Your task to perform on an android device: Open Chrome and go to settings Image 0: 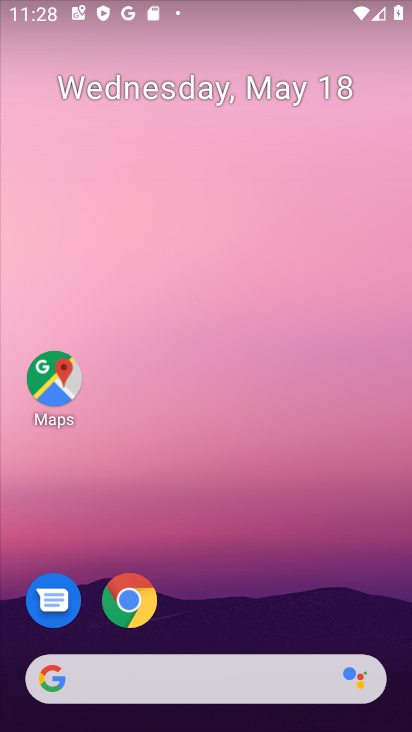
Step 0: click (131, 612)
Your task to perform on an android device: Open Chrome and go to settings Image 1: 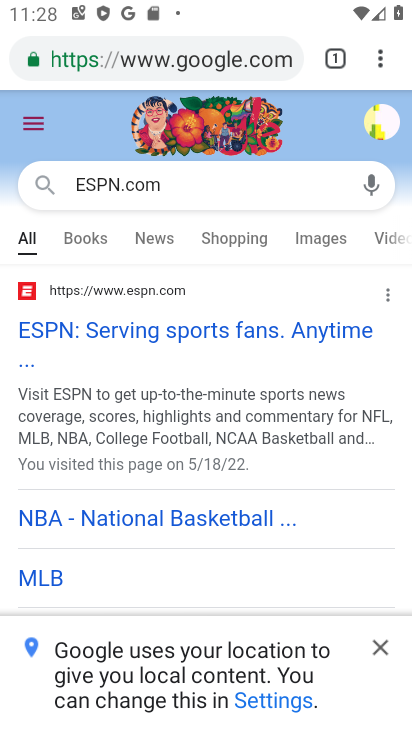
Step 1: click (383, 59)
Your task to perform on an android device: Open Chrome and go to settings Image 2: 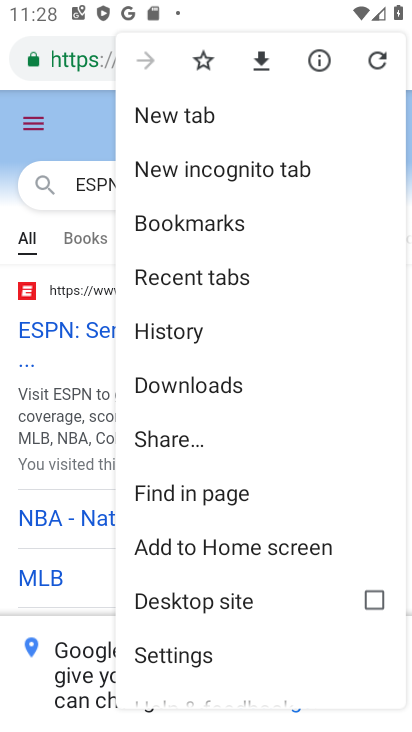
Step 2: click (182, 666)
Your task to perform on an android device: Open Chrome and go to settings Image 3: 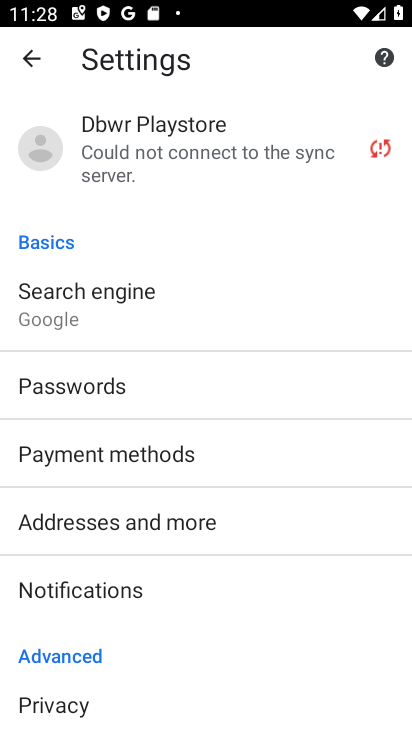
Step 3: task complete